Your task to perform on an android device: What's on my calendar today? Image 0: 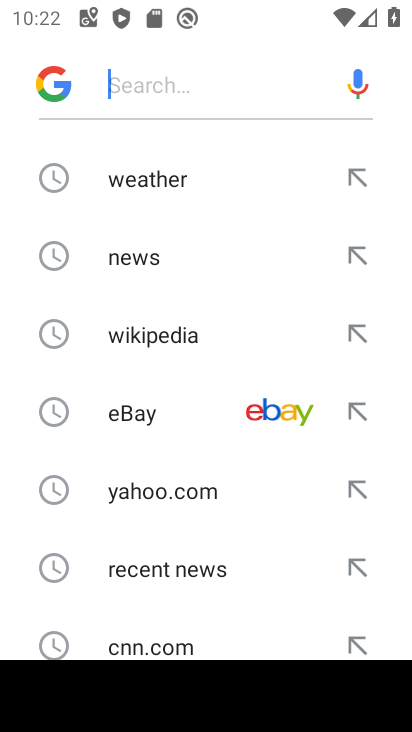
Step 0: press home button
Your task to perform on an android device: What's on my calendar today? Image 1: 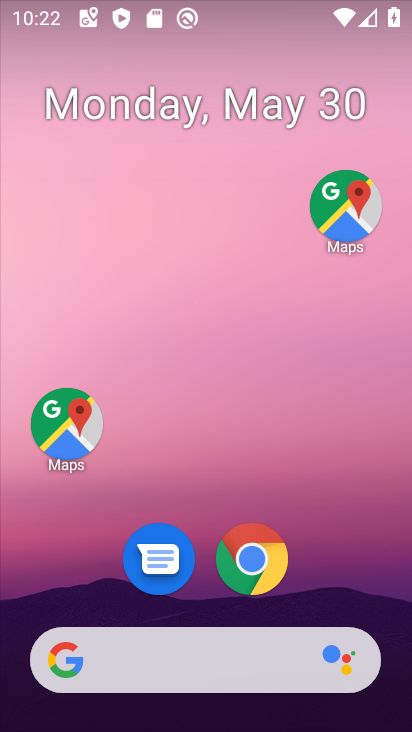
Step 1: drag from (346, 438) to (343, 89)
Your task to perform on an android device: What's on my calendar today? Image 2: 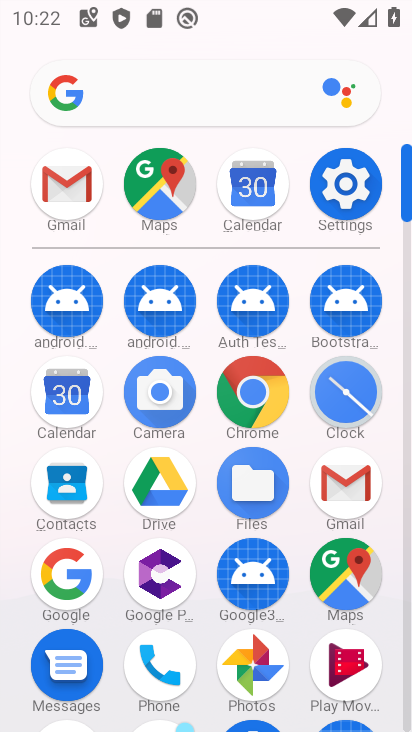
Step 2: click (76, 380)
Your task to perform on an android device: What's on my calendar today? Image 3: 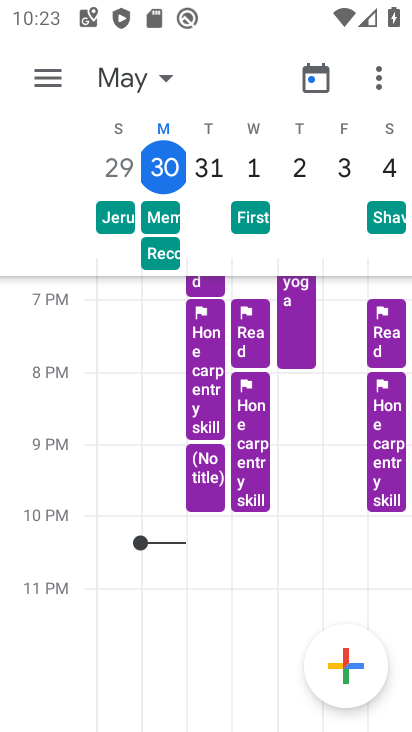
Step 3: task complete